Your task to perform on an android device: Go to Yahoo.com Image 0: 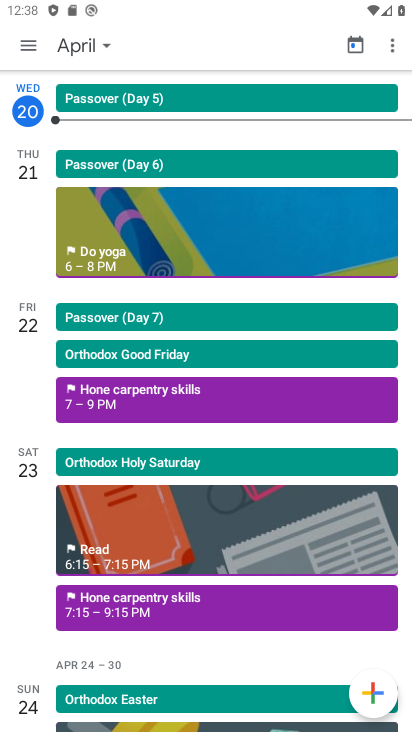
Step 0: press home button
Your task to perform on an android device: Go to Yahoo.com Image 1: 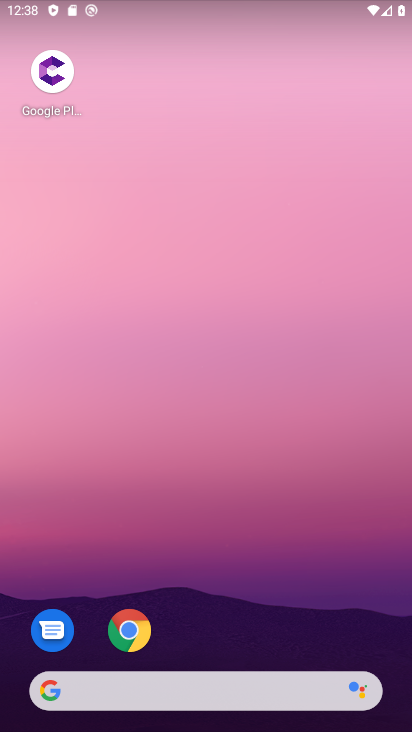
Step 1: drag from (344, 541) to (309, 87)
Your task to perform on an android device: Go to Yahoo.com Image 2: 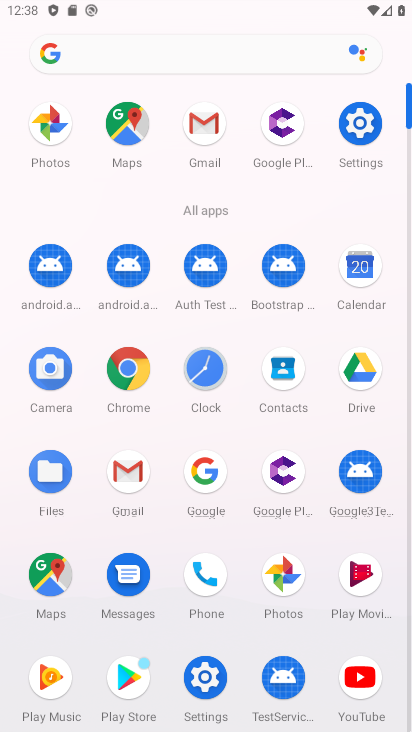
Step 2: click (127, 386)
Your task to perform on an android device: Go to Yahoo.com Image 3: 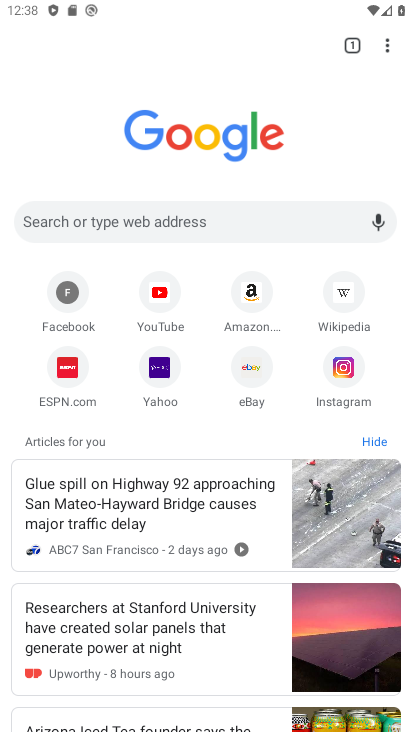
Step 3: click (160, 385)
Your task to perform on an android device: Go to Yahoo.com Image 4: 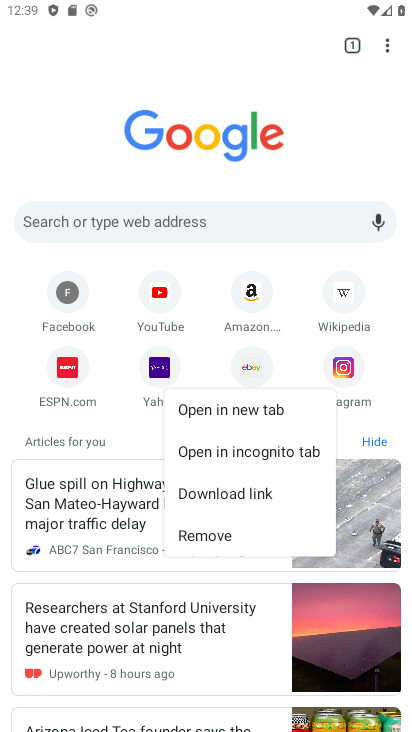
Step 4: click (165, 373)
Your task to perform on an android device: Go to Yahoo.com Image 5: 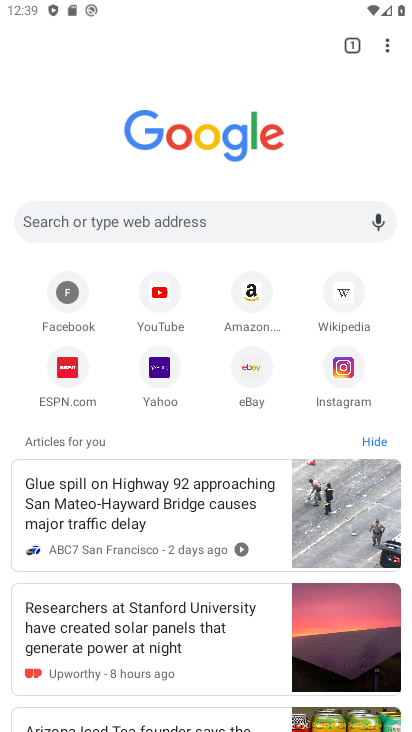
Step 5: click (165, 373)
Your task to perform on an android device: Go to Yahoo.com Image 6: 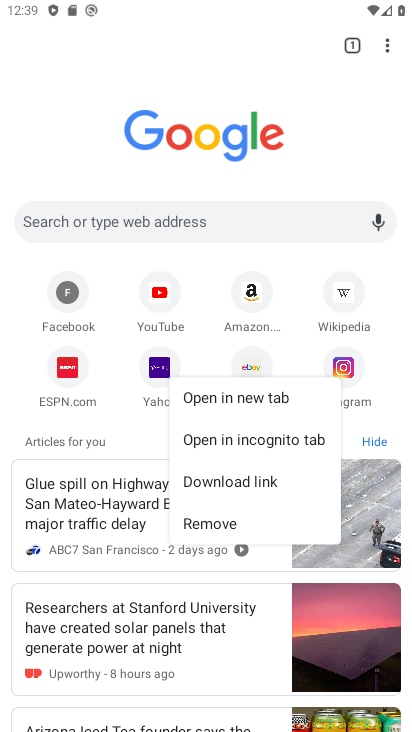
Step 6: click (201, 397)
Your task to perform on an android device: Go to Yahoo.com Image 7: 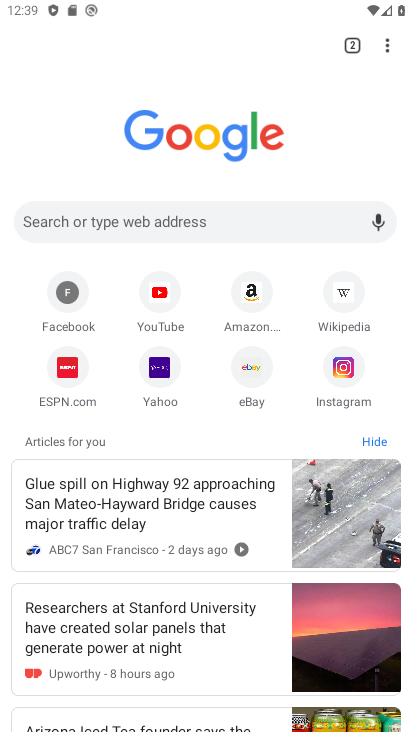
Step 7: click (152, 381)
Your task to perform on an android device: Go to Yahoo.com Image 8: 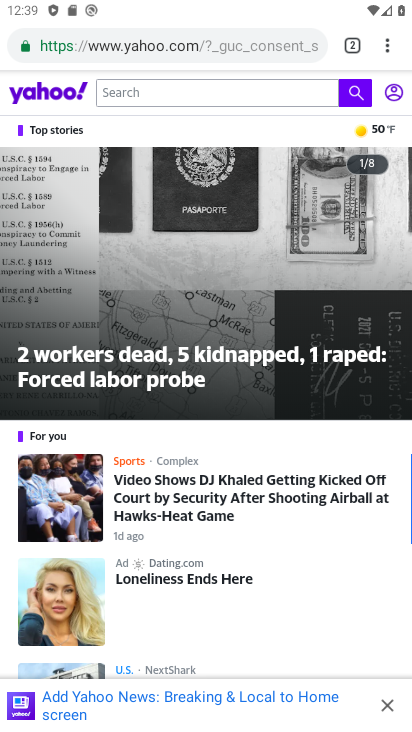
Step 8: task complete